Your task to perform on an android device: Show the shopping cart on amazon.com. Image 0: 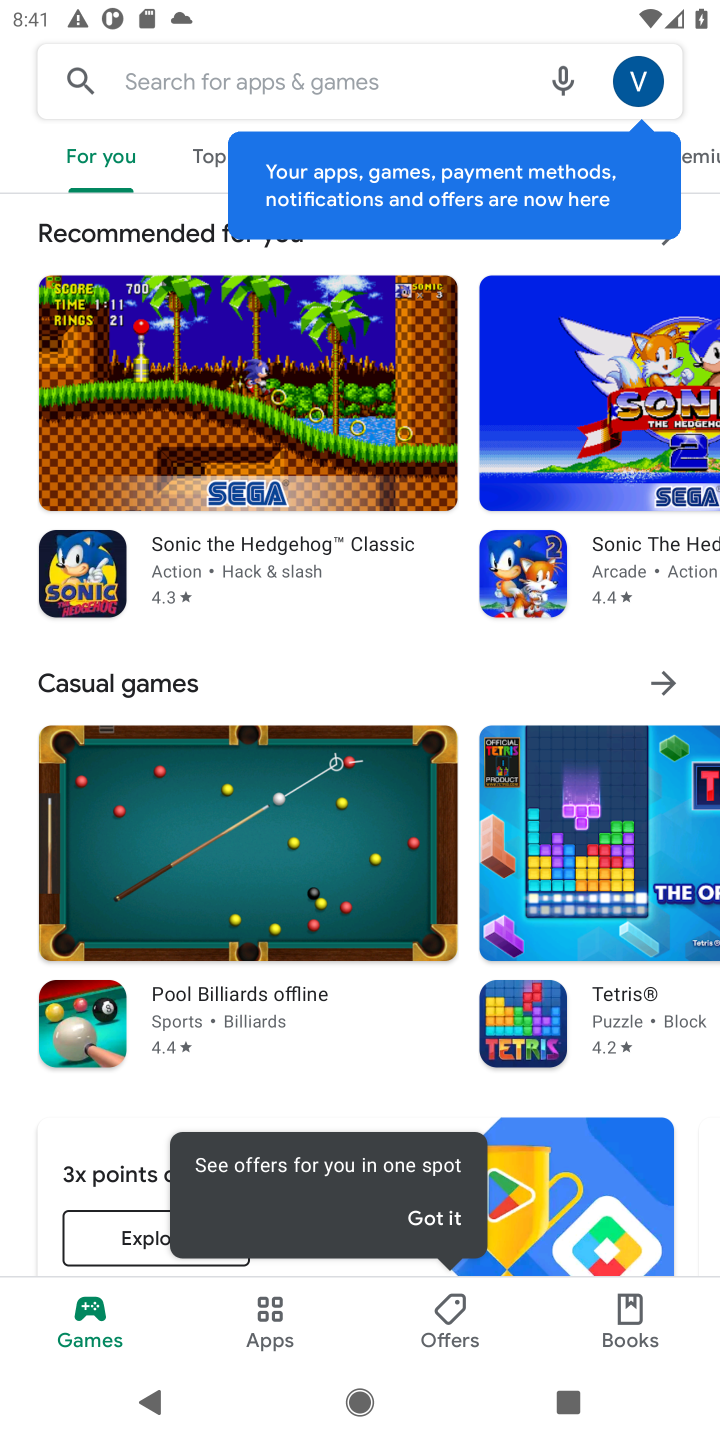
Step 0: press home button
Your task to perform on an android device: Show the shopping cart on amazon.com. Image 1: 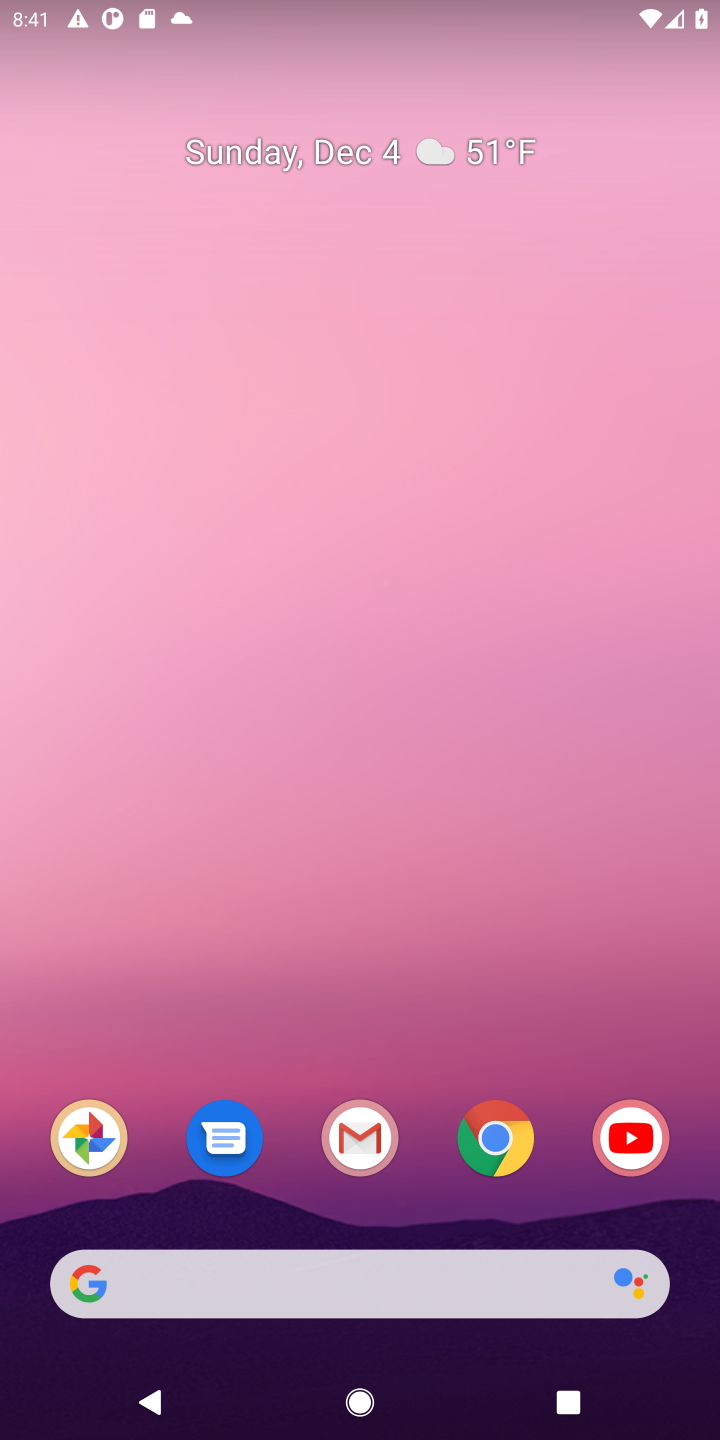
Step 1: click (492, 1163)
Your task to perform on an android device: Show the shopping cart on amazon.com. Image 2: 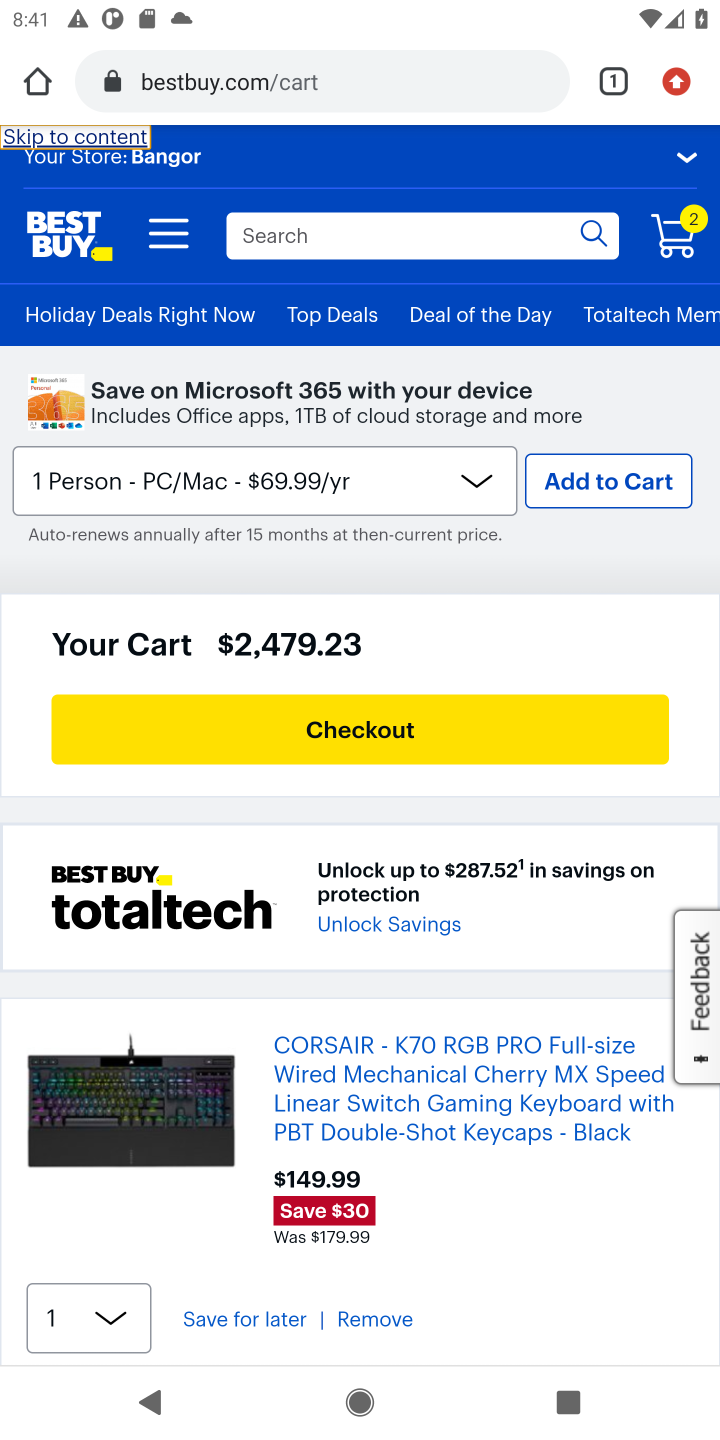
Step 2: click (394, 75)
Your task to perform on an android device: Show the shopping cart on amazon.com. Image 3: 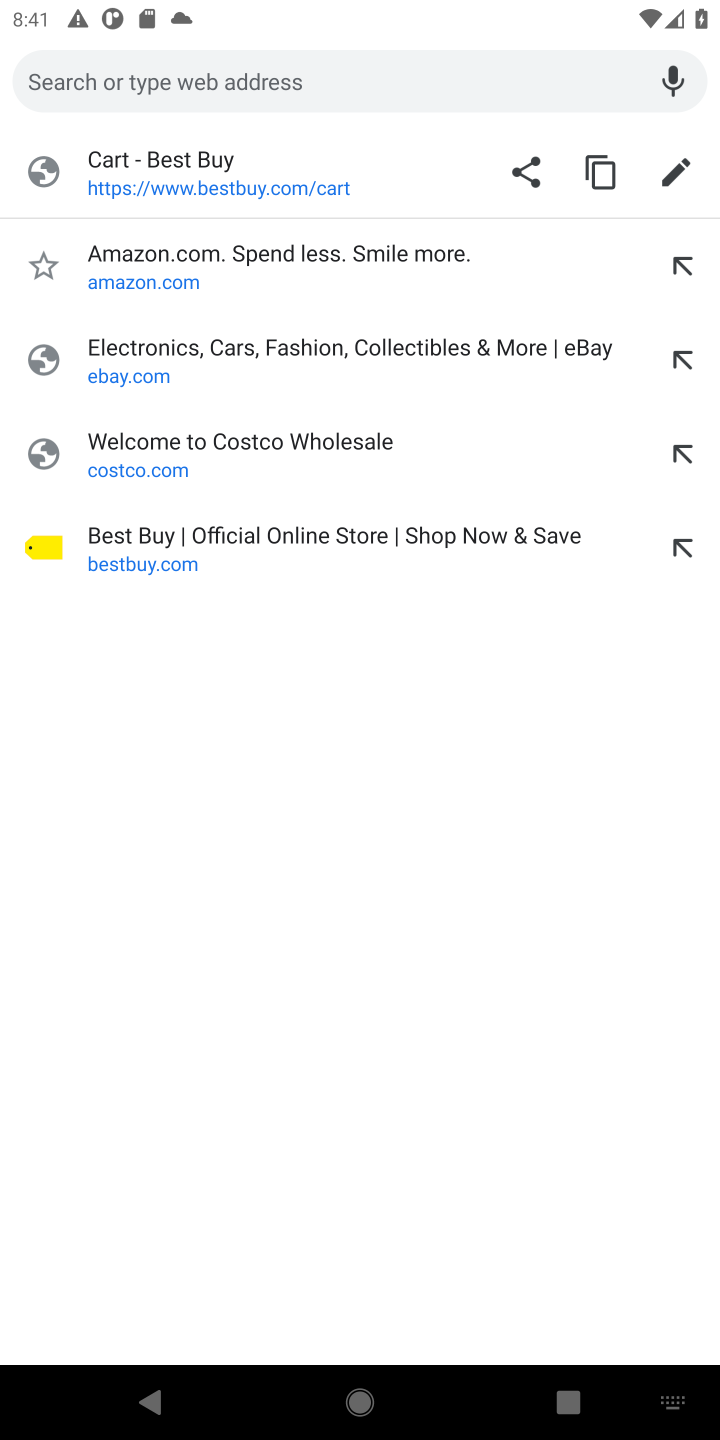
Step 3: click (223, 252)
Your task to perform on an android device: Show the shopping cart on amazon.com. Image 4: 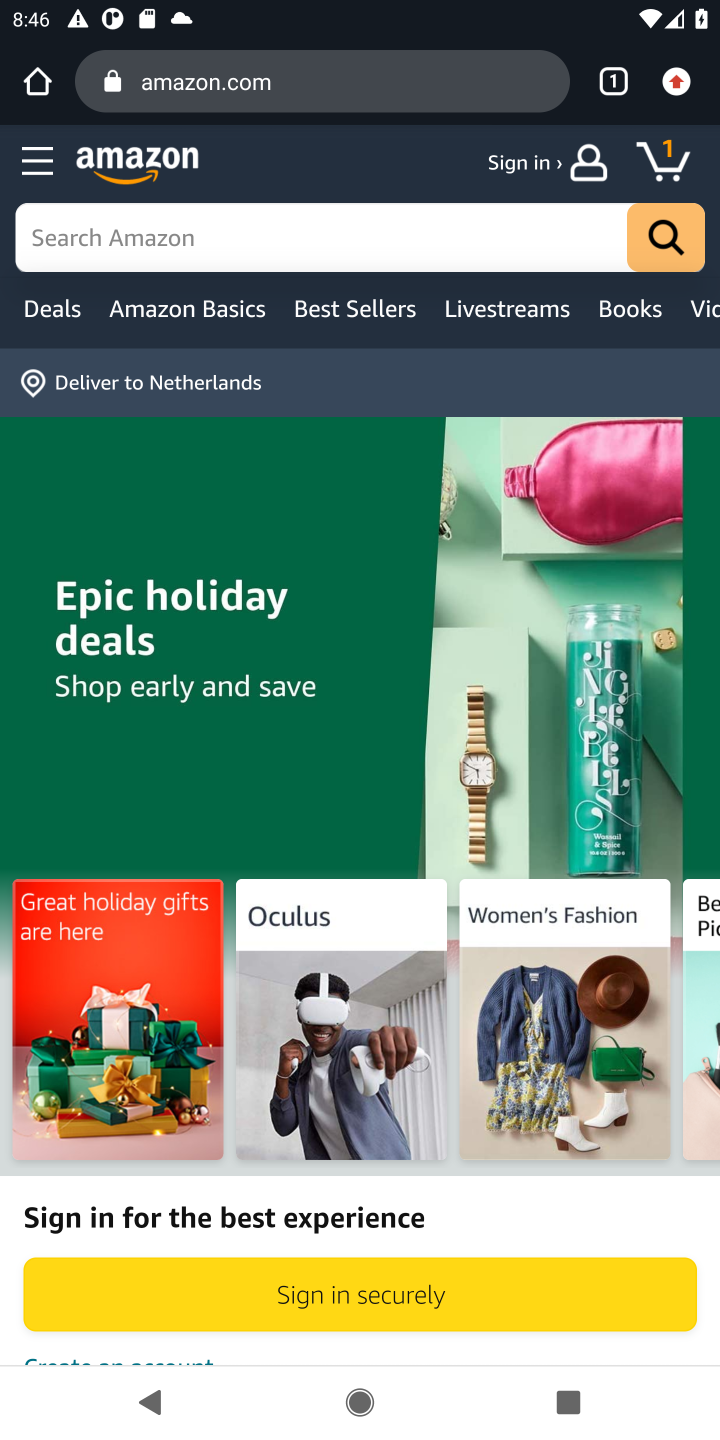
Step 4: click (669, 167)
Your task to perform on an android device: Show the shopping cart on amazon.com. Image 5: 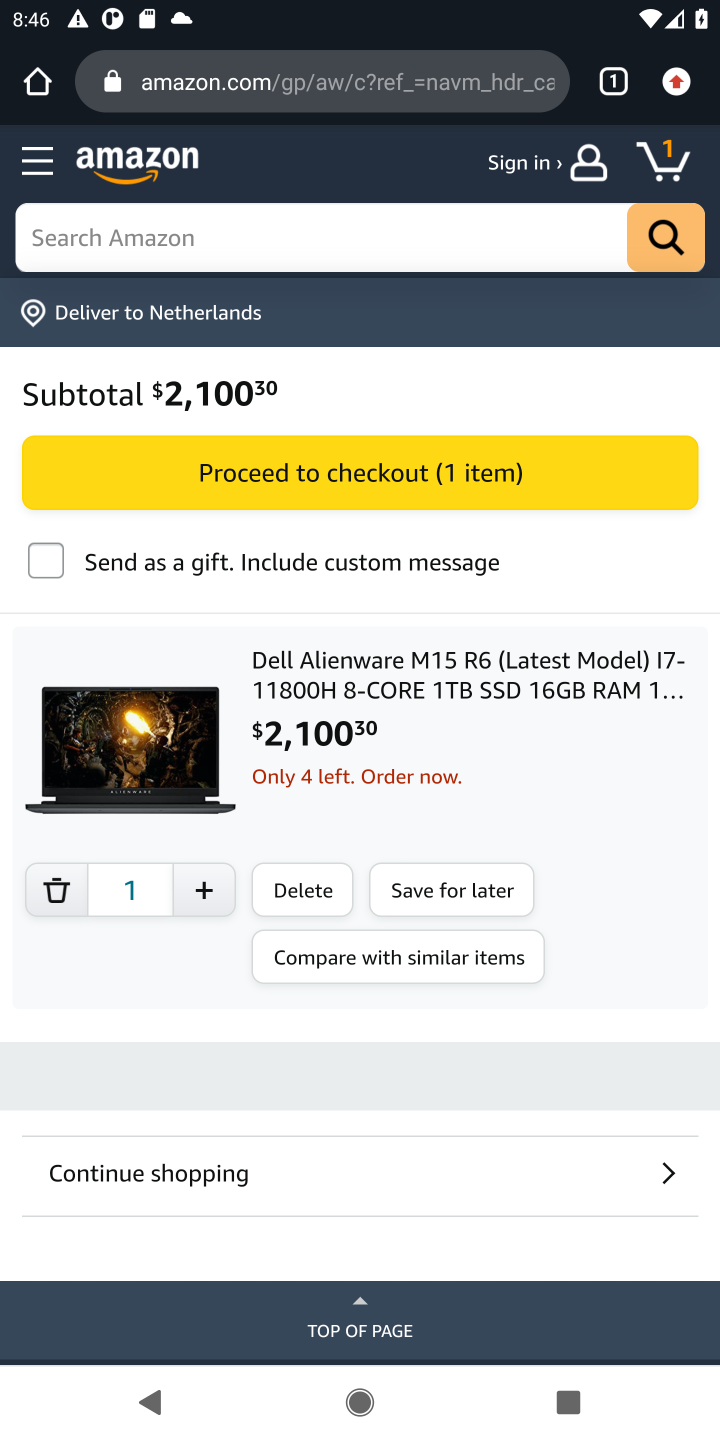
Step 5: task complete